Your task to perform on an android device: Check the weather Image 0: 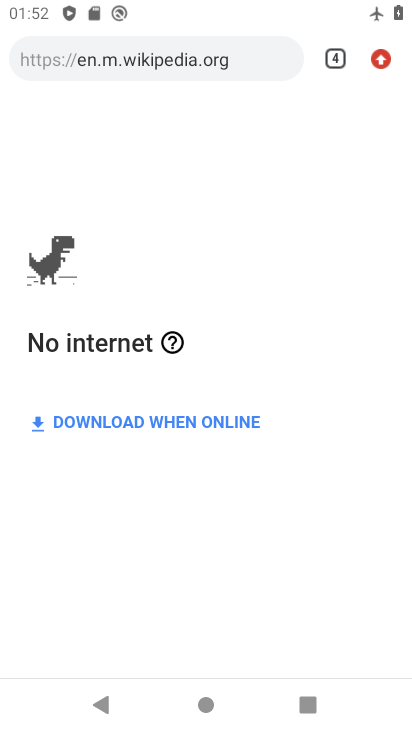
Step 0: press home button
Your task to perform on an android device: Check the weather Image 1: 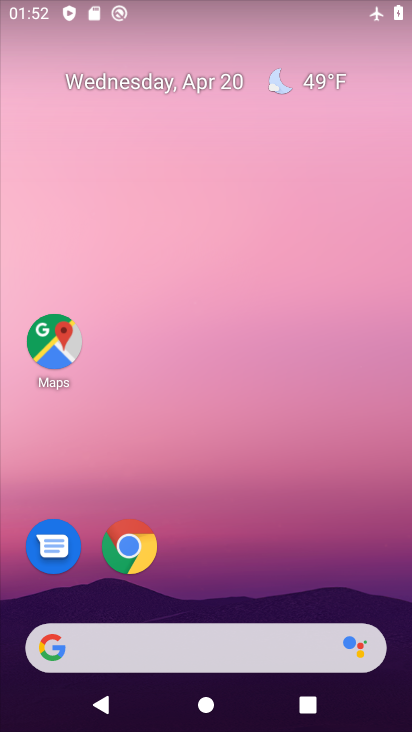
Step 1: drag from (266, 552) to (291, 246)
Your task to perform on an android device: Check the weather Image 2: 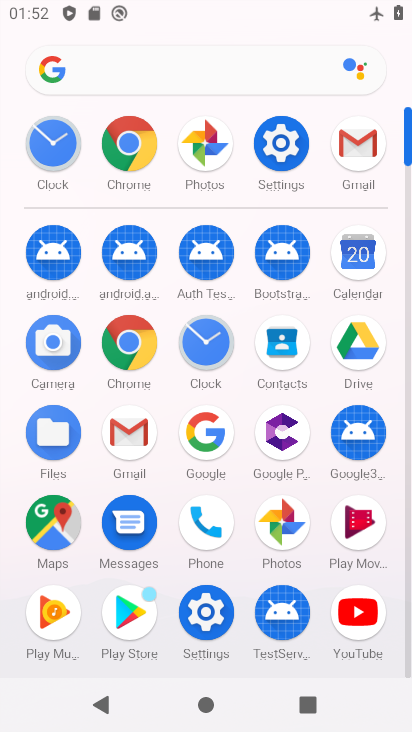
Step 2: click (131, 142)
Your task to perform on an android device: Check the weather Image 3: 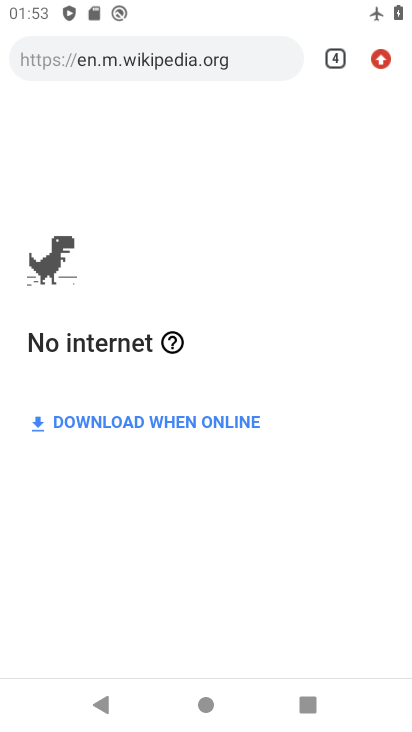
Step 3: click (373, 55)
Your task to perform on an android device: Check the weather Image 4: 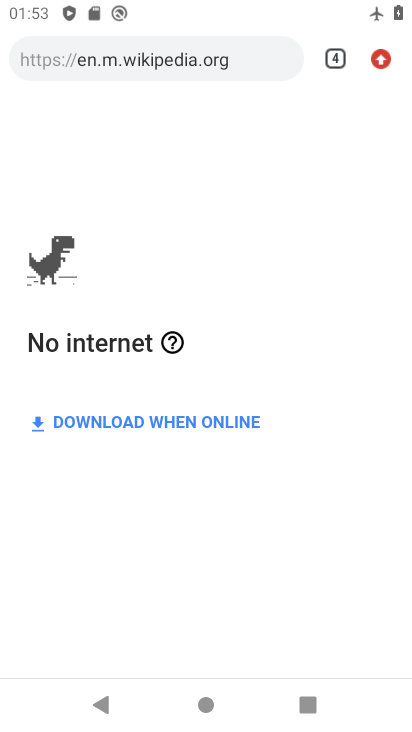
Step 4: click (373, 55)
Your task to perform on an android device: Check the weather Image 5: 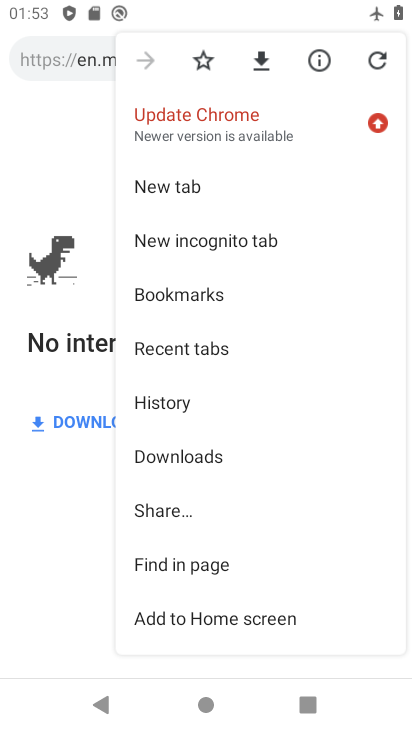
Step 5: click (189, 198)
Your task to perform on an android device: Check the weather Image 6: 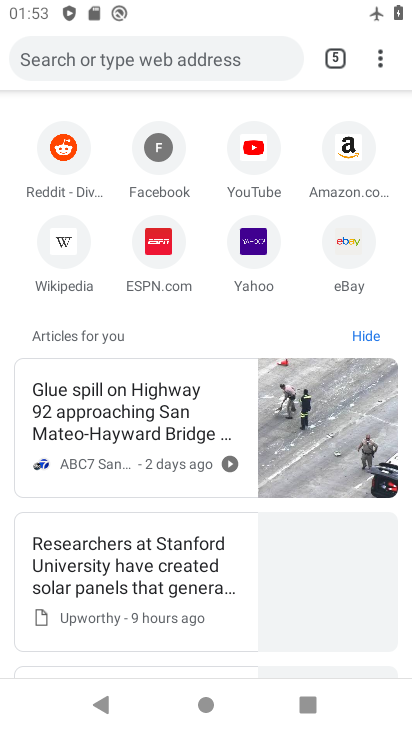
Step 6: click (170, 53)
Your task to perform on an android device: Check the weather Image 7: 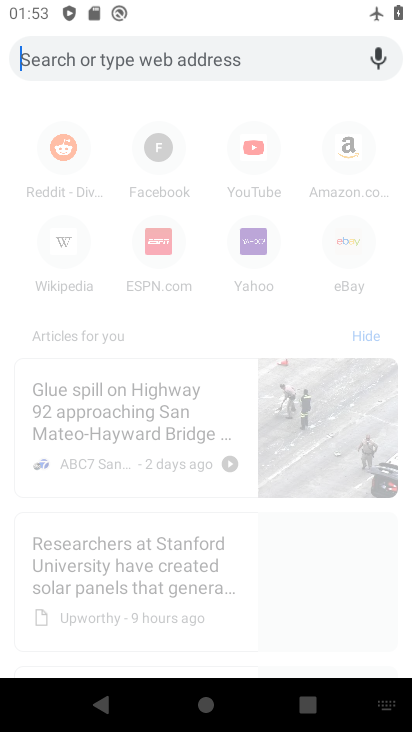
Step 7: click (231, 47)
Your task to perform on an android device: Check the weather Image 8: 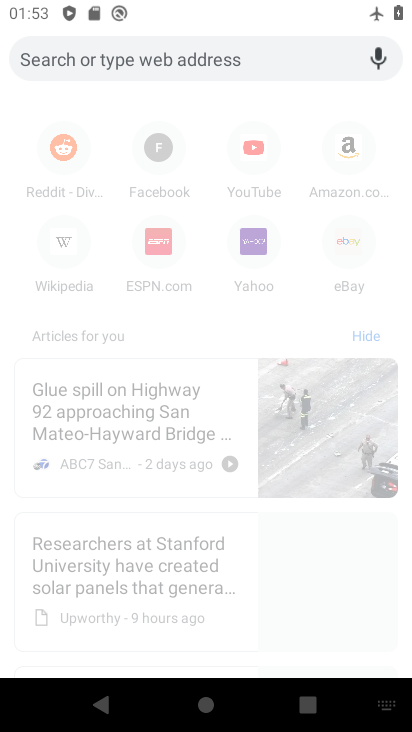
Step 8: type "weather"
Your task to perform on an android device: Check the weather Image 9: 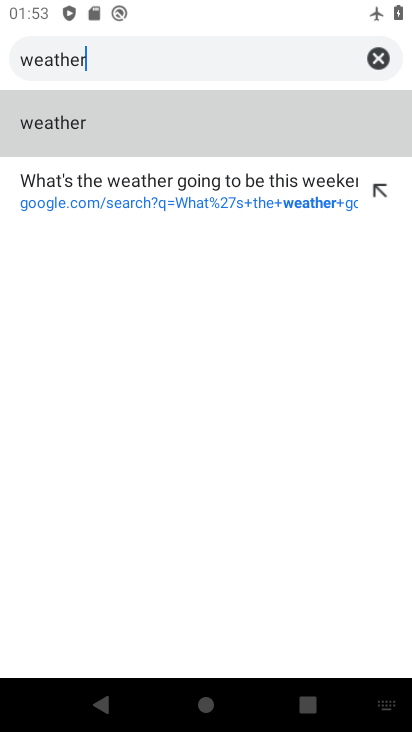
Step 9: click (181, 192)
Your task to perform on an android device: Check the weather Image 10: 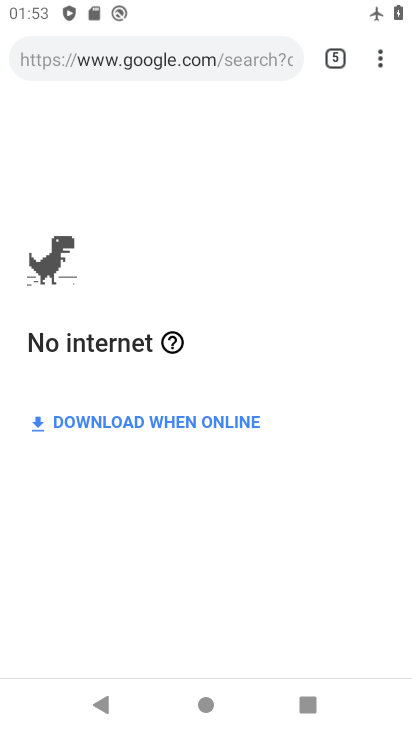
Step 10: task complete